Your task to perform on an android device: Go to sound settings Image 0: 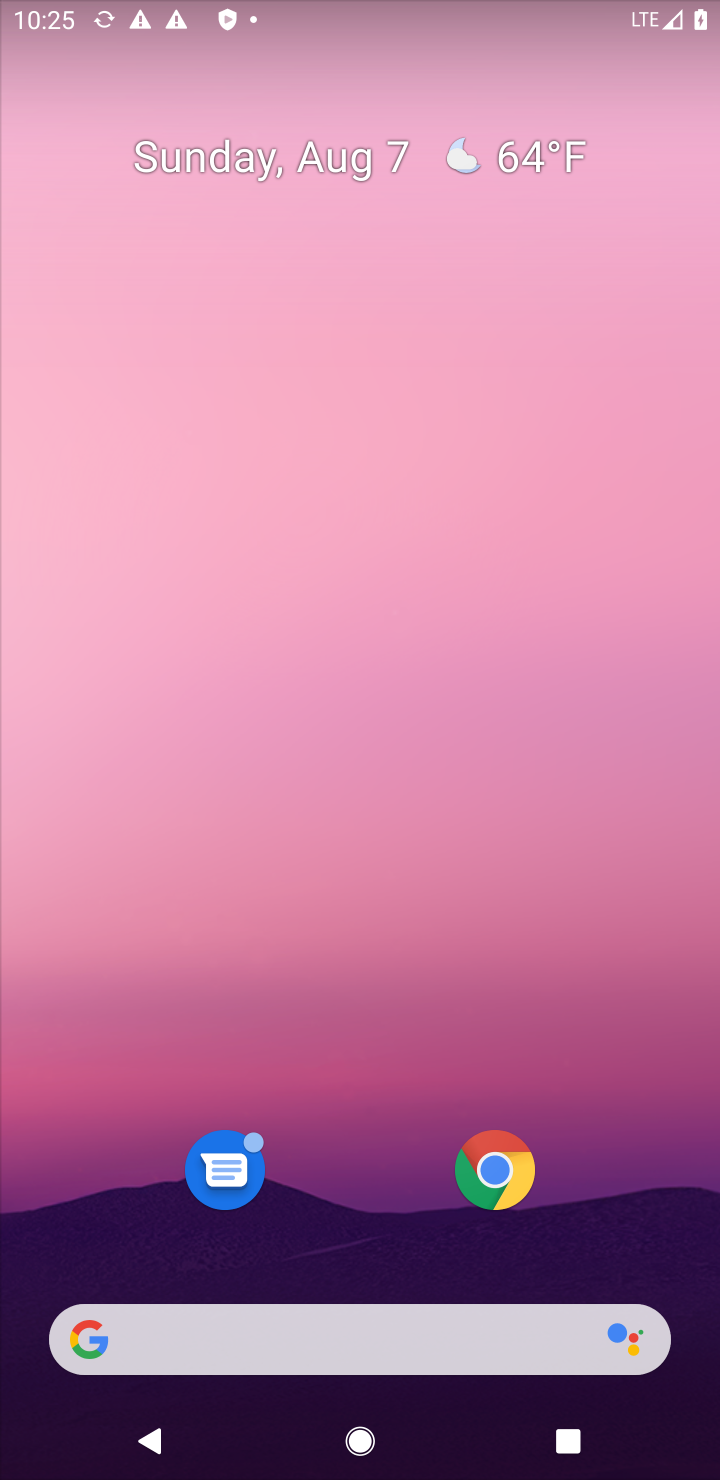
Step 0: drag from (225, 1331) to (181, 270)
Your task to perform on an android device: Go to sound settings Image 1: 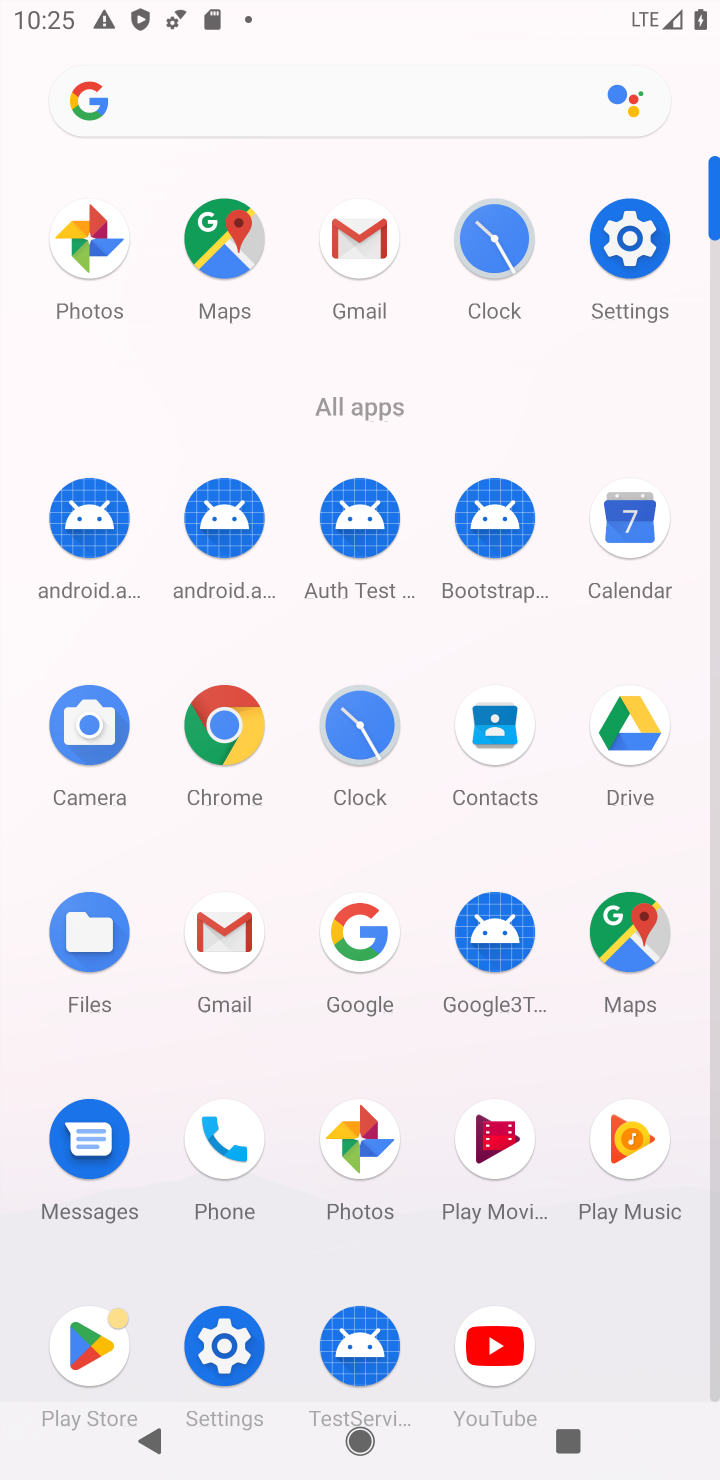
Step 1: click (645, 235)
Your task to perform on an android device: Go to sound settings Image 2: 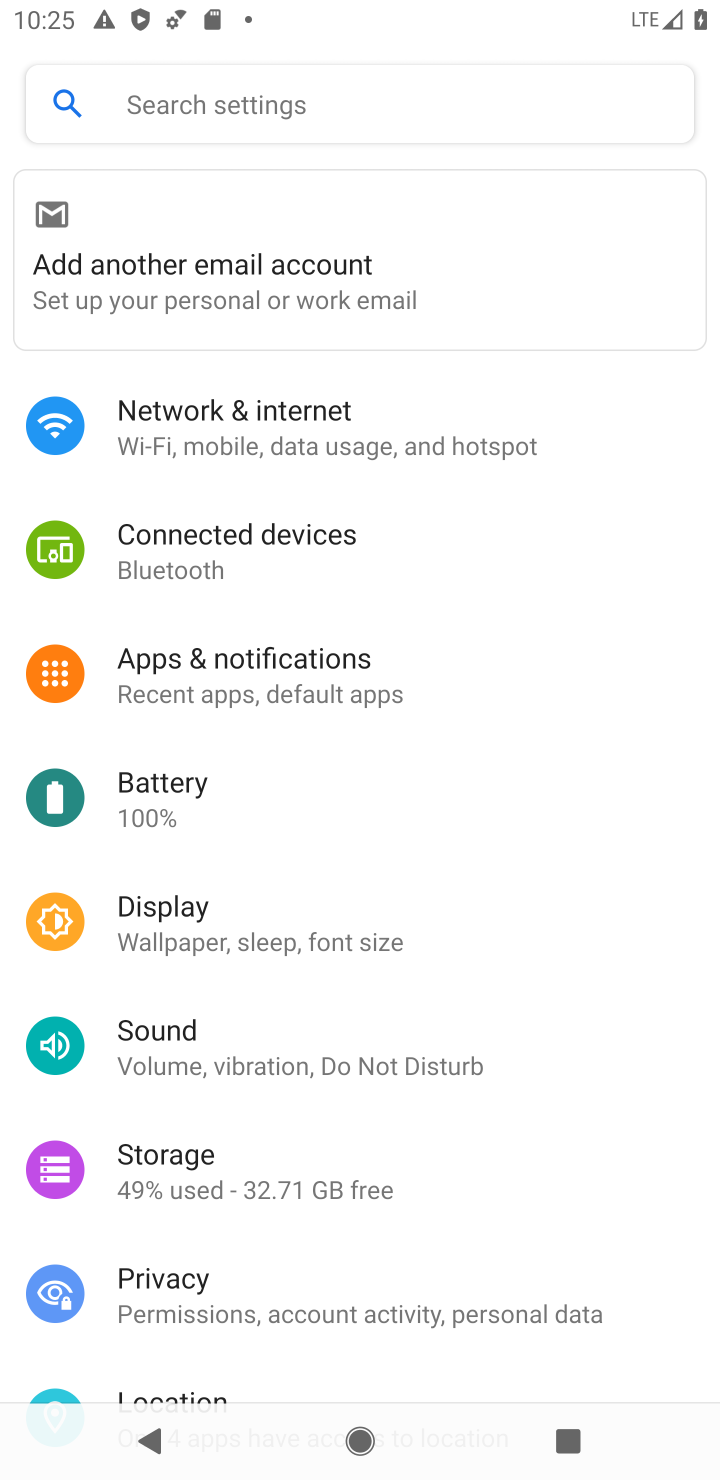
Step 2: click (257, 1075)
Your task to perform on an android device: Go to sound settings Image 3: 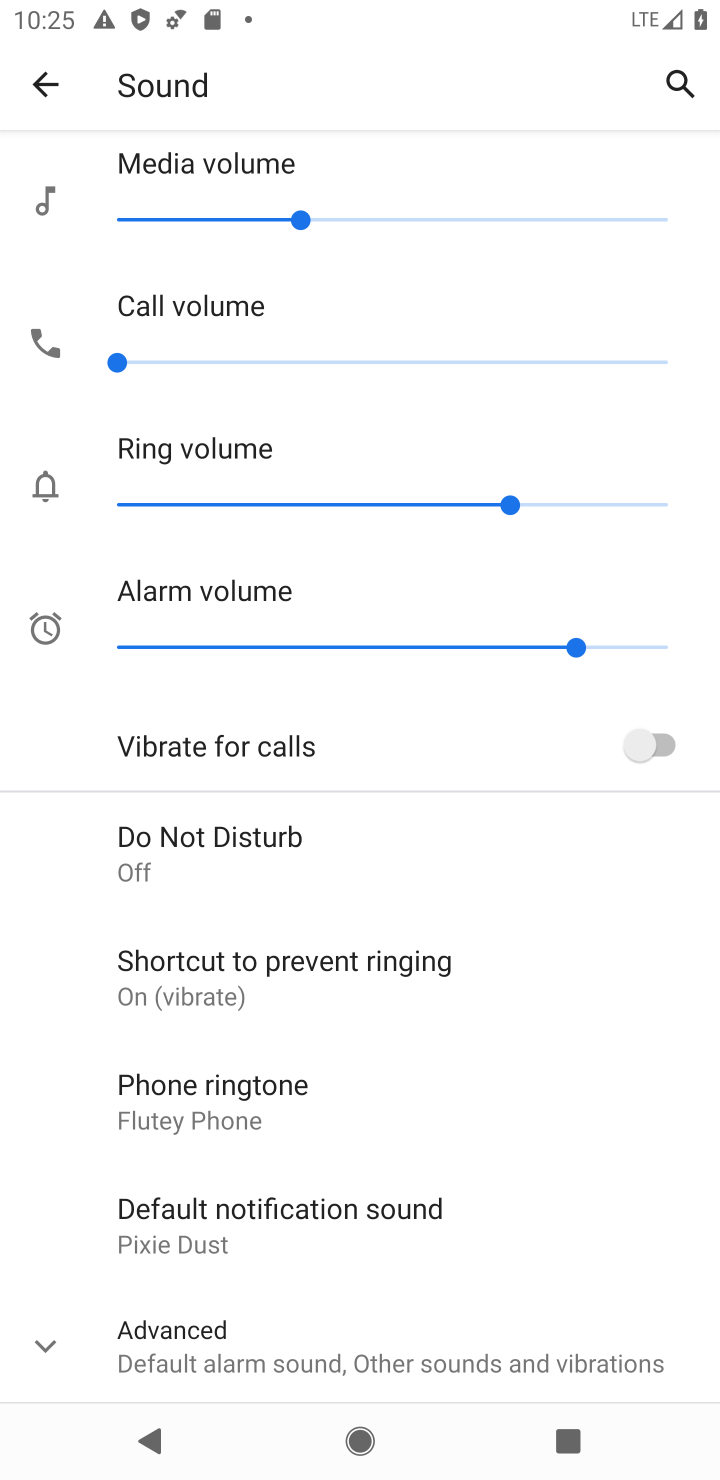
Step 3: task complete